Your task to perform on an android device: change the clock display to analog Image 0: 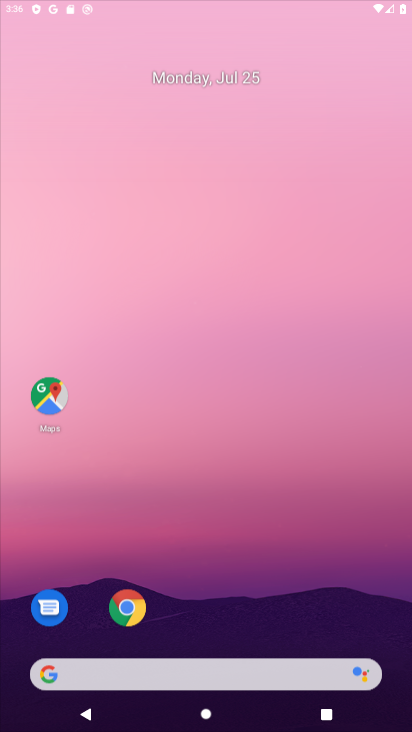
Step 0: press home button
Your task to perform on an android device: change the clock display to analog Image 1: 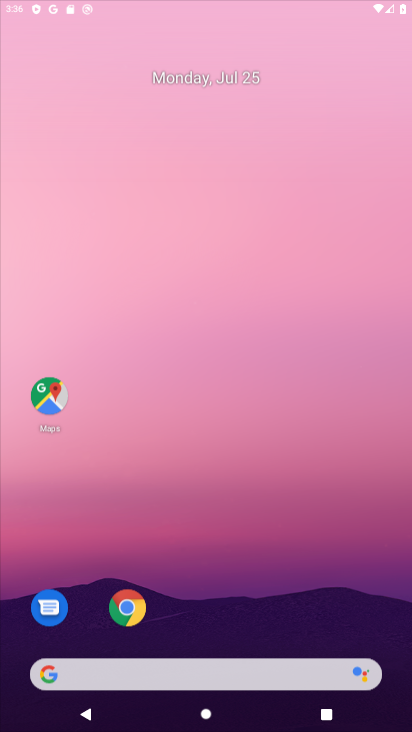
Step 1: click (129, 601)
Your task to perform on an android device: change the clock display to analog Image 2: 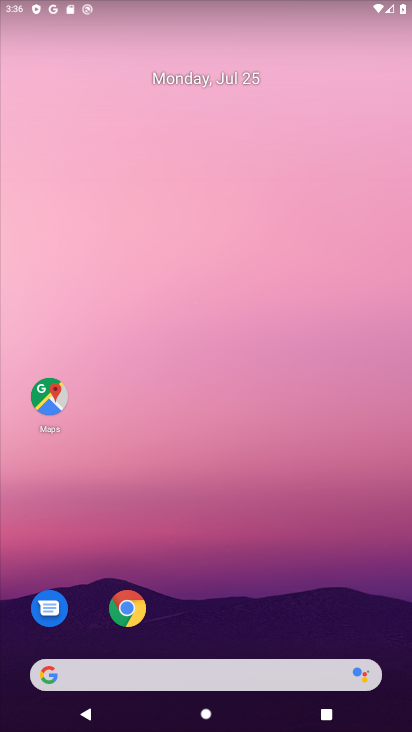
Step 2: drag from (257, 421) to (288, 26)
Your task to perform on an android device: change the clock display to analog Image 3: 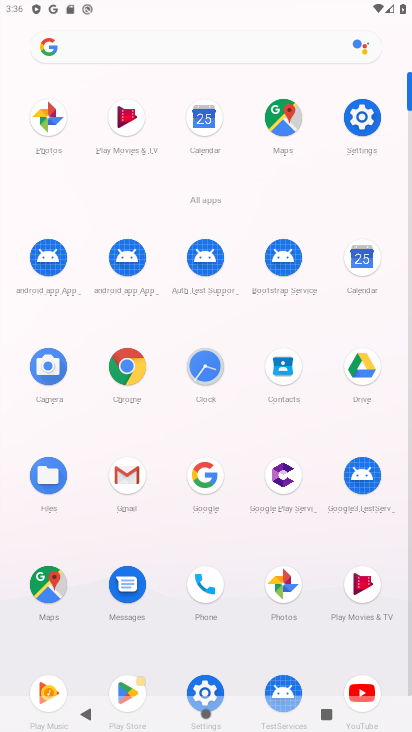
Step 3: click (205, 360)
Your task to perform on an android device: change the clock display to analog Image 4: 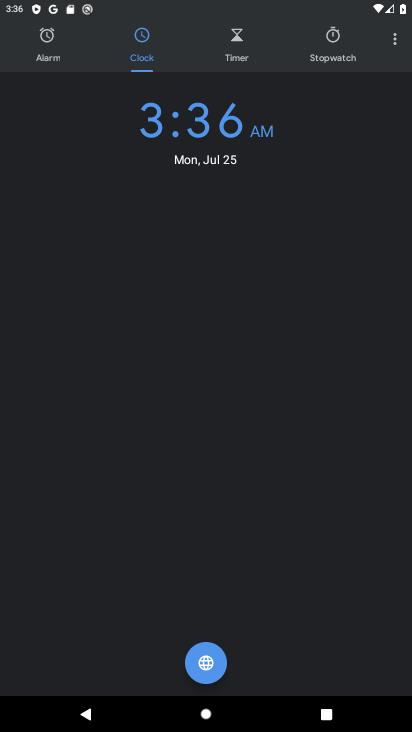
Step 4: click (386, 42)
Your task to perform on an android device: change the clock display to analog Image 5: 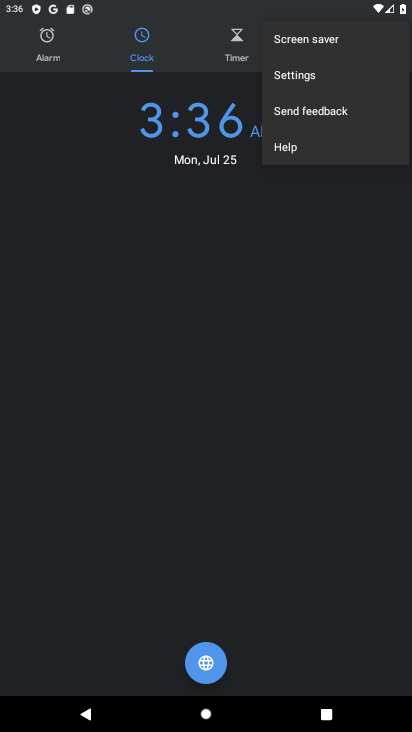
Step 5: click (319, 77)
Your task to perform on an android device: change the clock display to analog Image 6: 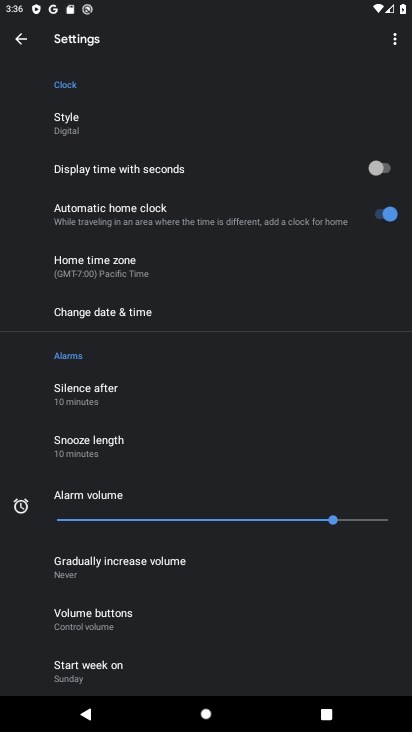
Step 6: click (99, 126)
Your task to perform on an android device: change the clock display to analog Image 7: 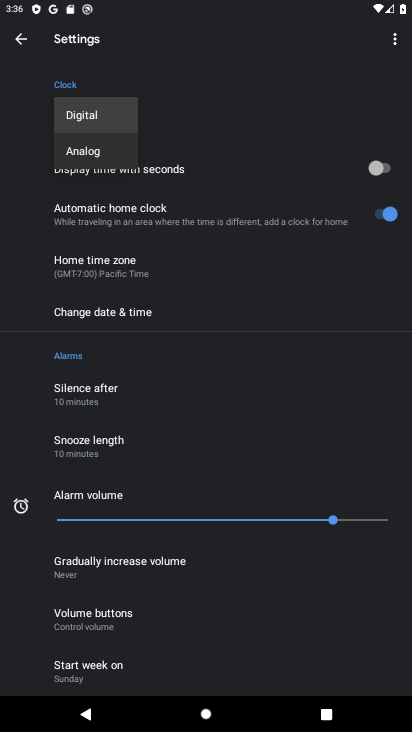
Step 7: click (112, 154)
Your task to perform on an android device: change the clock display to analog Image 8: 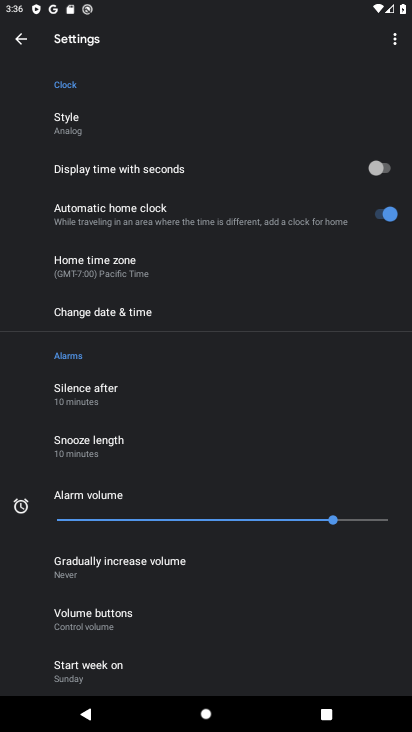
Step 8: task complete